Your task to perform on an android device: open app "TextNow: Call + Text Unlimited" (install if not already installed) and go to login screen Image 0: 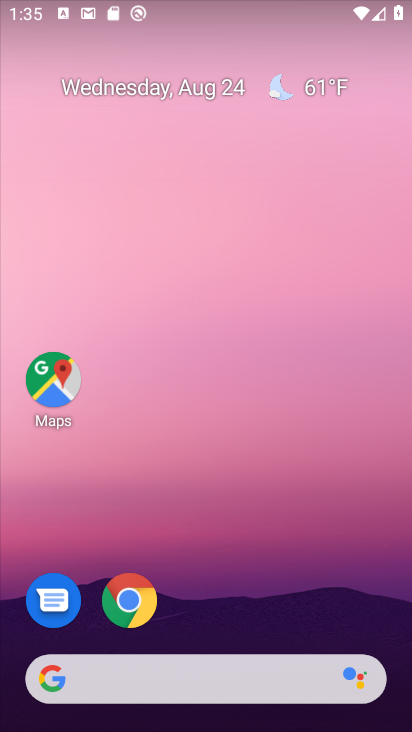
Step 0: click (251, 254)
Your task to perform on an android device: open app "TextNow: Call + Text Unlimited" (install if not already installed) and go to login screen Image 1: 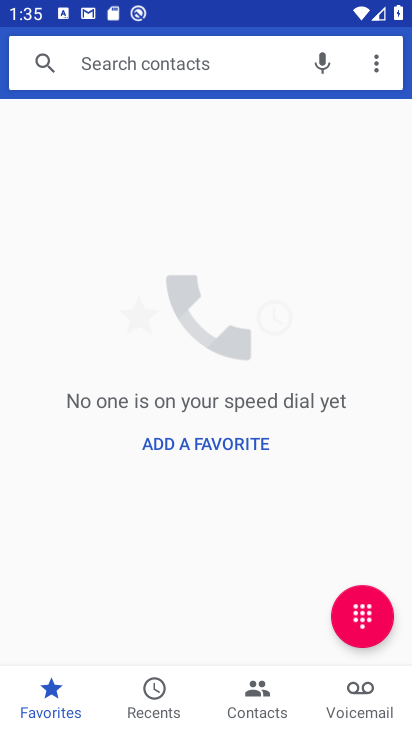
Step 1: press home button
Your task to perform on an android device: open app "TextNow: Call + Text Unlimited" (install if not already installed) and go to login screen Image 2: 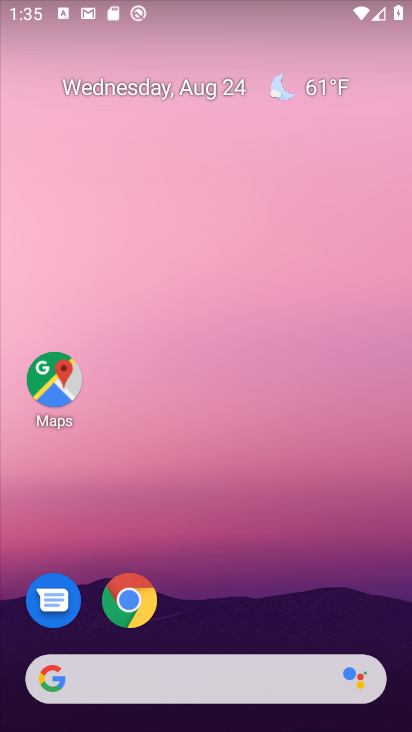
Step 2: drag from (227, 611) to (245, 168)
Your task to perform on an android device: open app "TextNow: Call + Text Unlimited" (install if not already installed) and go to login screen Image 3: 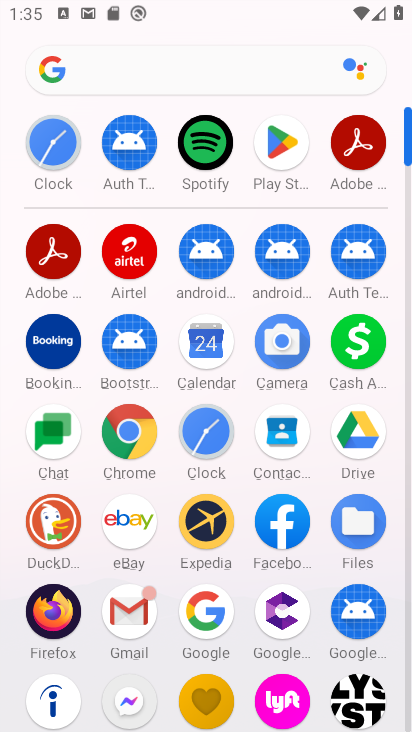
Step 3: click (279, 160)
Your task to perform on an android device: open app "TextNow: Call + Text Unlimited" (install if not already installed) and go to login screen Image 4: 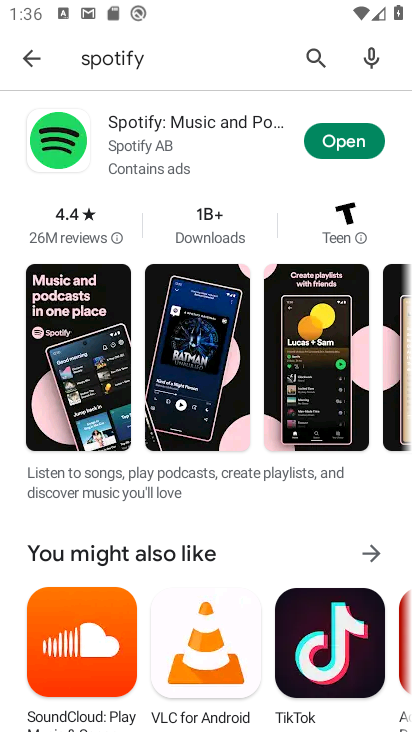
Step 4: click (302, 53)
Your task to perform on an android device: open app "TextNow: Call + Text Unlimited" (install if not already installed) and go to login screen Image 5: 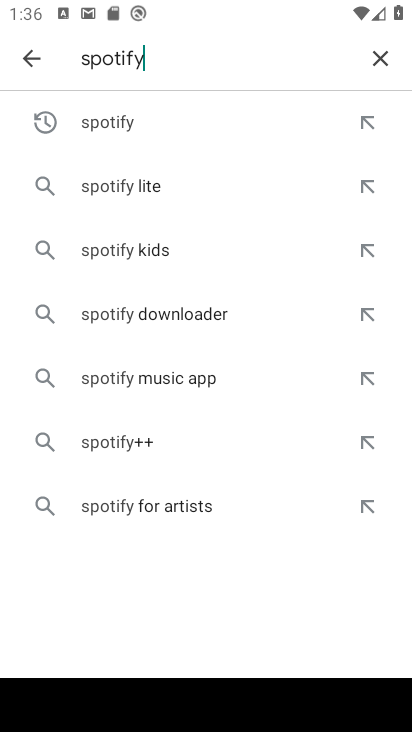
Step 5: click (369, 51)
Your task to perform on an android device: open app "TextNow: Call + Text Unlimited" (install if not already installed) and go to login screen Image 6: 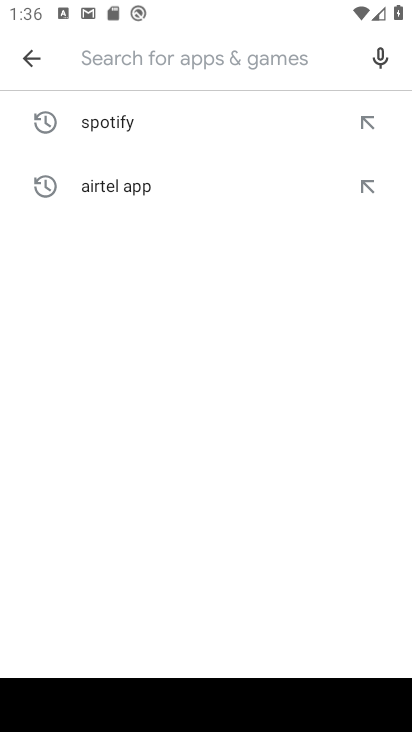
Step 6: type "textnow"
Your task to perform on an android device: open app "TextNow: Call + Text Unlimited" (install if not already installed) and go to login screen Image 7: 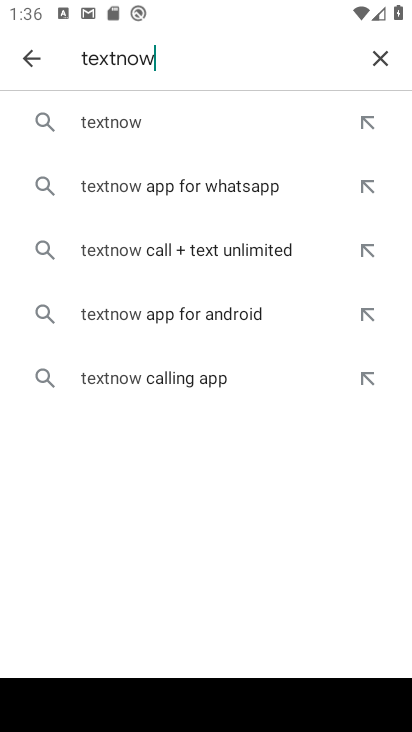
Step 7: click (171, 132)
Your task to perform on an android device: open app "TextNow: Call + Text Unlimited" (install if not already installed) and go to login screen Image 8: 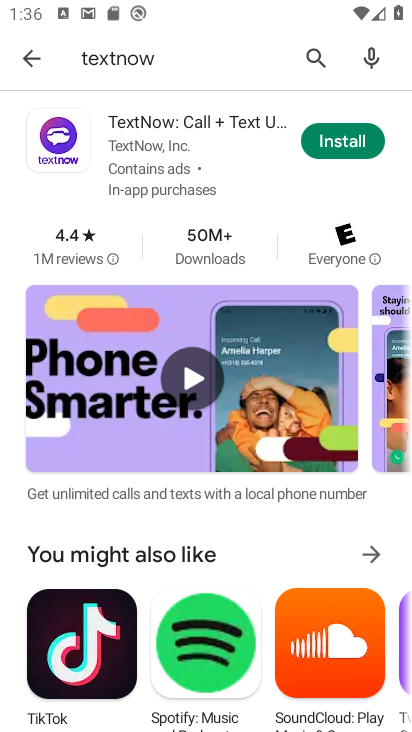
Step 8: click (342, 125)
Your task to perform on an android device: open app "TextNow: Call + Text Unlimited" (install if not already installed) and go to login screen Image 9: 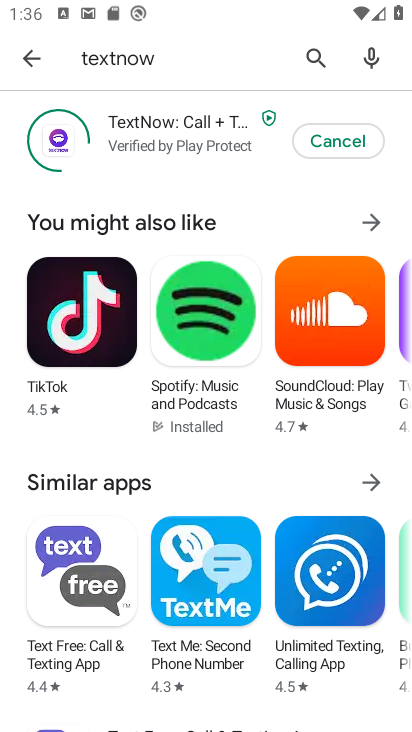
Step 9: task complete